Your task to perform on an android device: make emails show in primary in the gmail app Image 0: 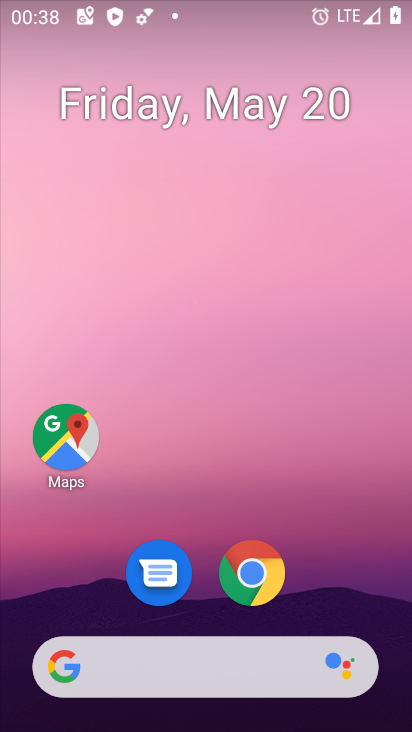
Step 0: drag from (202, 578) to (193, 154)
Your task to perform on an android device: make emails show in primary in the gmail app Image 1: 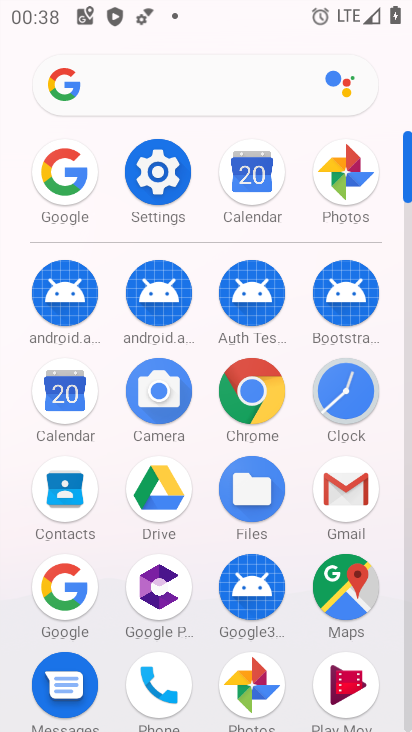
Step 1: click (334, 512)
Your task to perform on an android device: make emails show in primary in the gmail app Image 2: 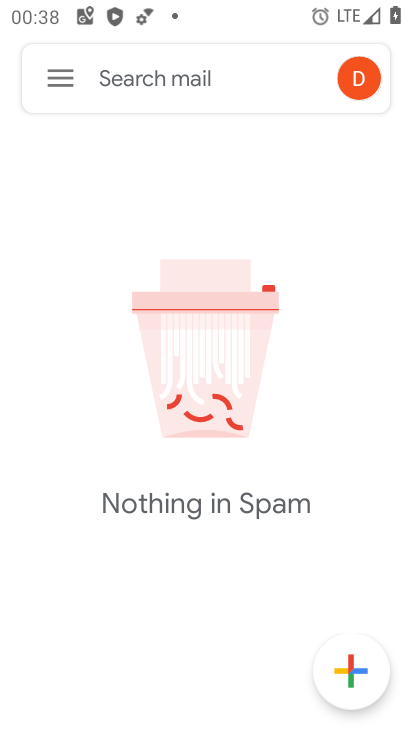
Step 2: click (65, 63)
Your task to perform on an android device: make emails show in primary in the gmail app Image 3: 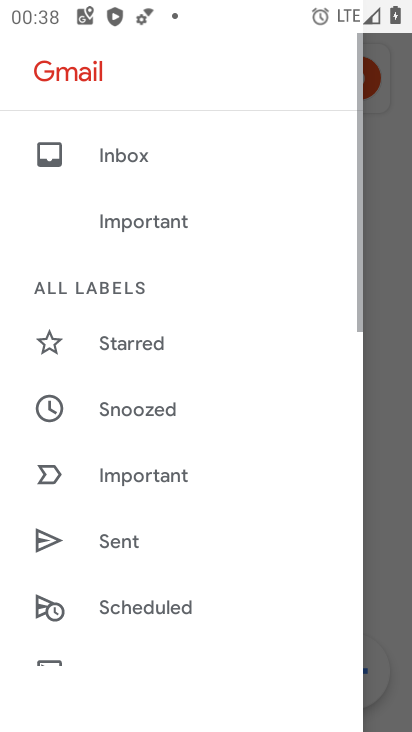
Step 3: drag from (149, 666) to (163, 341)
Your task to perform on an android device: make emails show in primary in the gmail app Image 4: 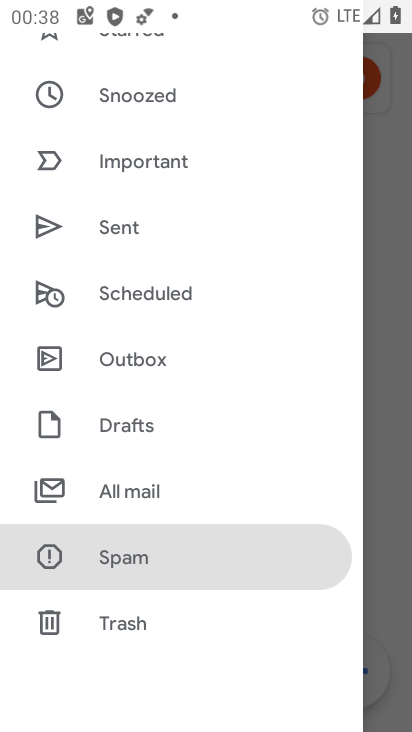
Step 4: drag from (187, 572) to (222, 288)
Your task to perform on an android device: make emails show in primary in the gmail app Image 5: 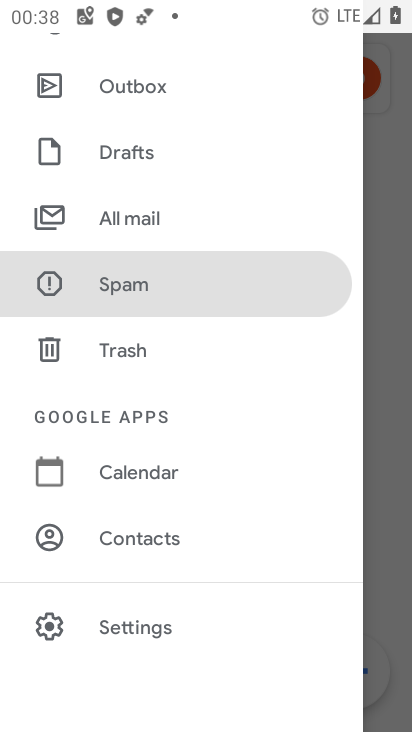
Step 5: click (142, 625)
Your task to perform on an android device: make emails show in primary in the gmail app Image 6: 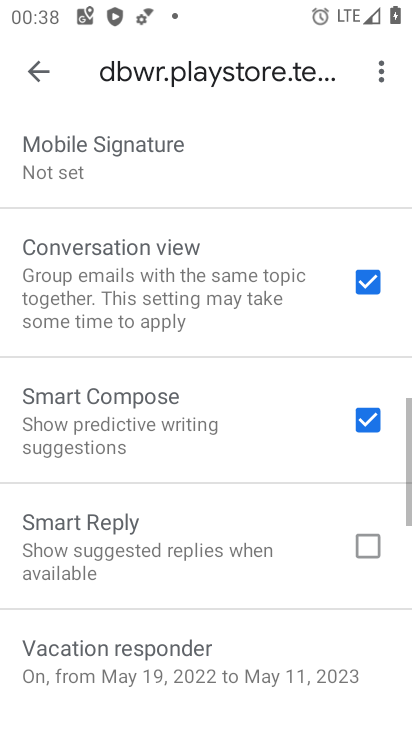
Step 6: drag from (188, 547) to (198, 396)
Your task to perform on an android device: make emails show in primary in the gmail app Image 7: 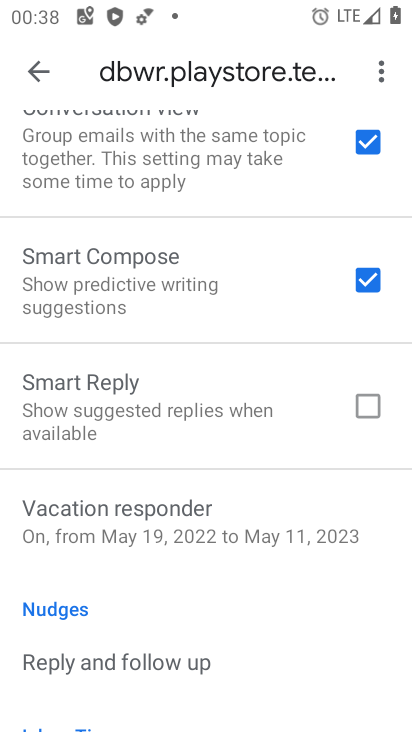
Step 7: drag from (174, 296) to (194, 426)
Your task to perform on an android device: make emails show in primary in the gmail app Image 8: 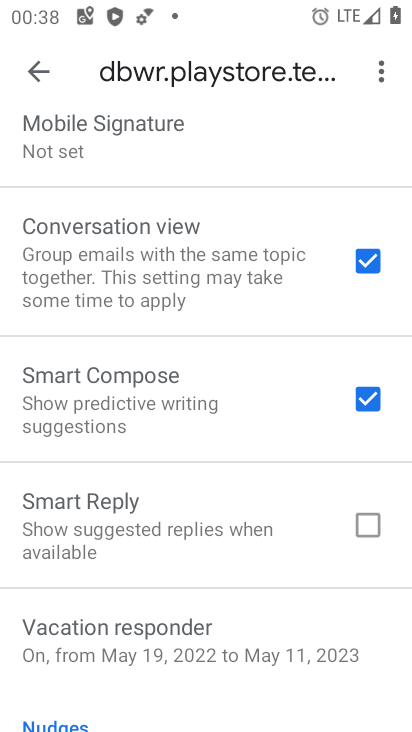
Step 8: drag from (193, 549) to (204, 312)
Your task to perform on an android device: make emails show in primary in the gmail app Image 9: 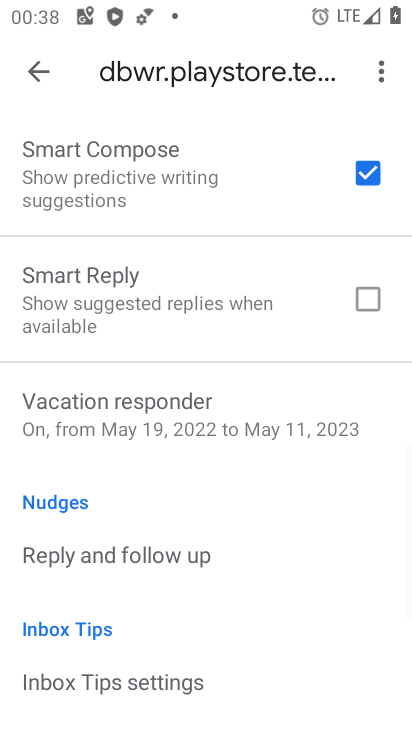
Step 9: drag from (222, 254) to (250, 474)
Your task to perform on an android device: make emails show in primary in the gmail app Image 10: 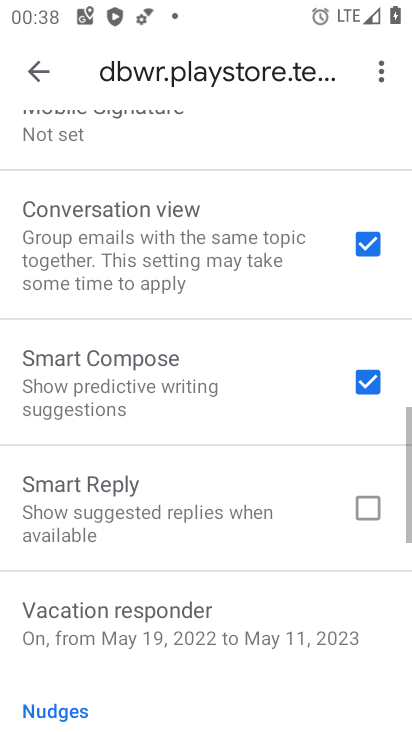
Step 10: drag from (237, 240) to (264, 419)
Your task to perform on an android device: make emails show in primary in the gmail app Image 11: 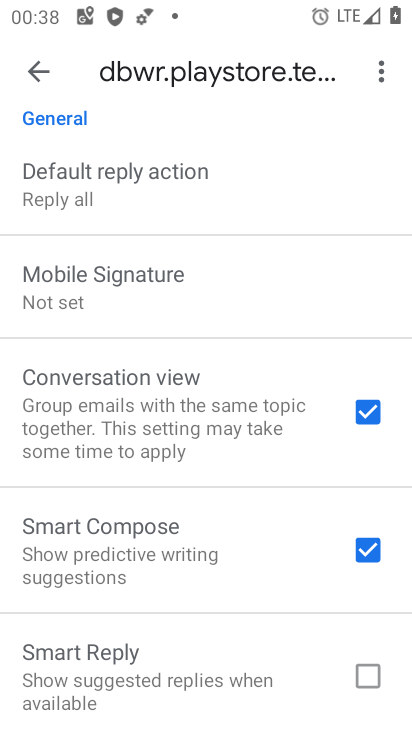
Step 11: drag from (224, 194) to (248, 330)
Your task to perform on an android device: make emails show in primary in the gmail app Image 12: 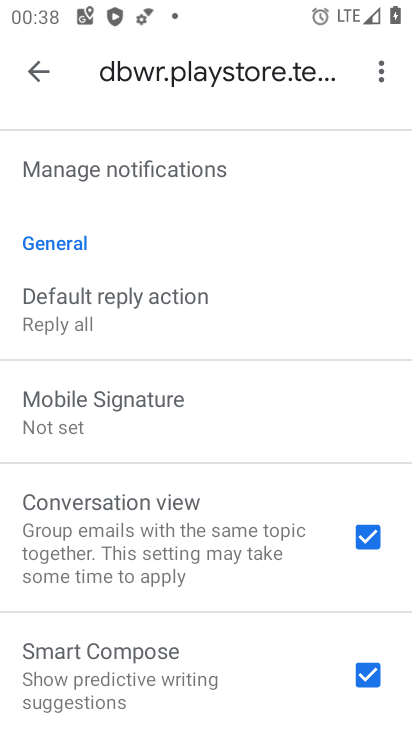
Step 12: drag from (242, 209) to (246, 354)
Your task to perform on an android device: make emails show in primary in the gmail app Image 13: 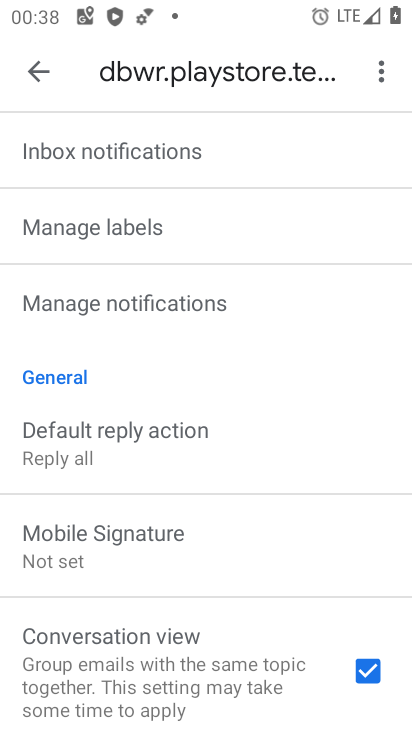
Step 13: drag from (213, 194) to (225, 311)
Your task to perform on an android device: make emails show in primary in the gmail app Image 14: 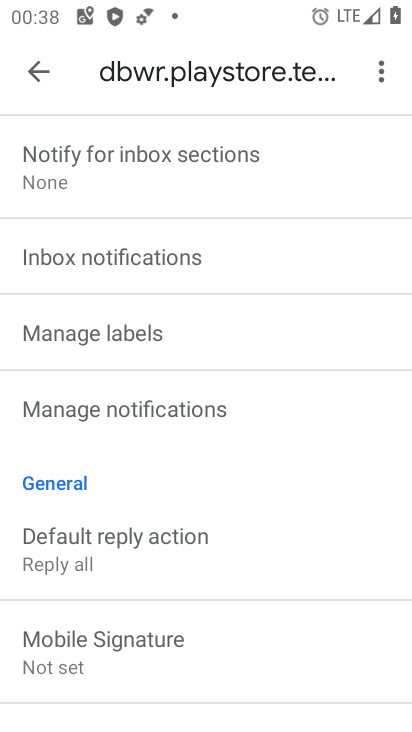
Step 14: drag from (210, 216) to (219, 302)
Your task to perform on an android device: make emails show in primary in the gmail app Image 15: 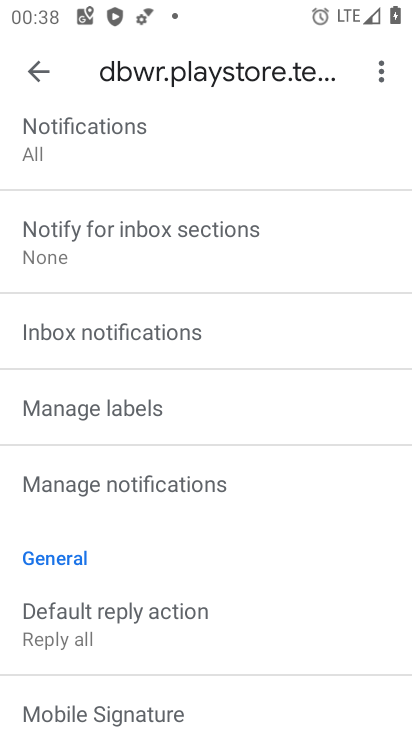
Step 15: drag from (220, 222) to (233, 292)
Your task to perform on an android device: make emails show in primary in the gmail app Image 16: 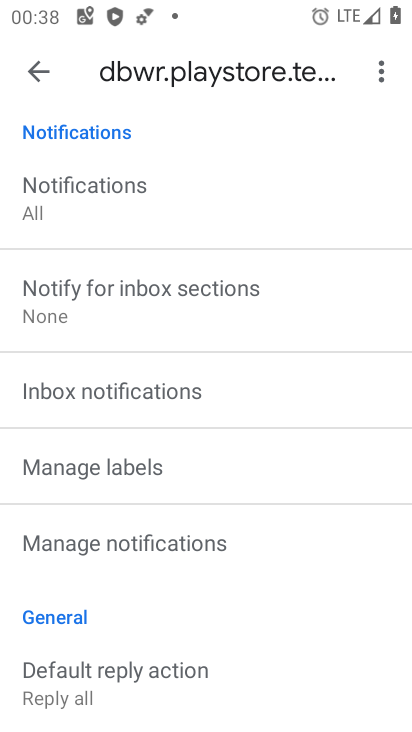
Step 16: drag from (226, 200) to (274, 600)
Your task to perform on an android device: make emails show in primary in the gmail app Image 17: 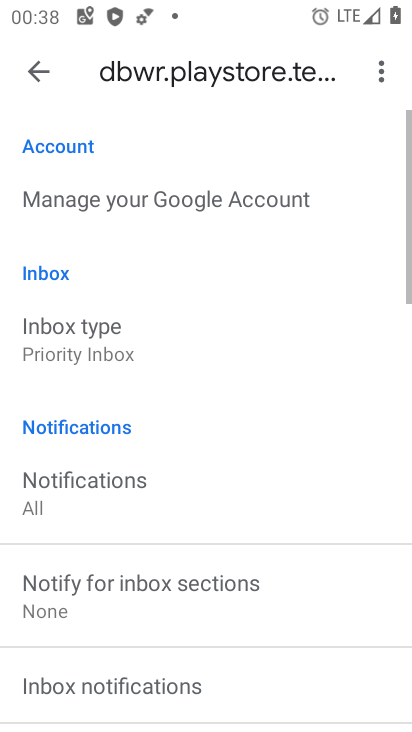
Step 17: click (146, 356)
Your task to perform on an android device: make emails show in primary in the gmail app Image 18: 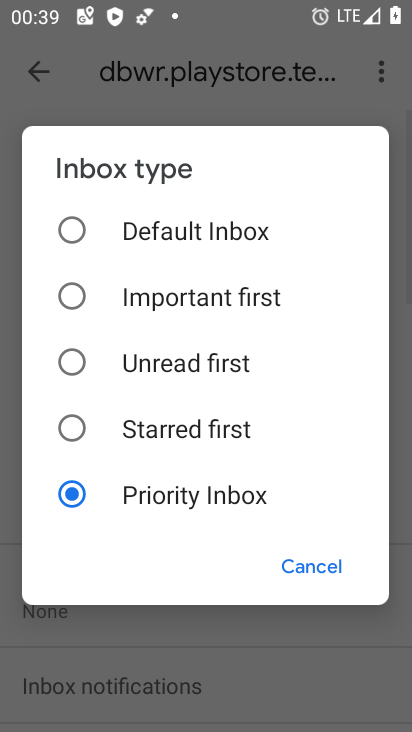
Step 18: click (215, 223)
Your task to perform on an android device: make emails show in primary in the gmail app Image 19: 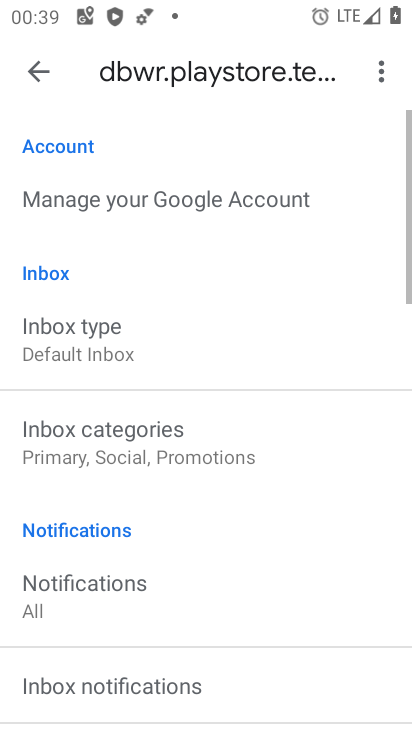
Step 19: task complete